Your task to perform on an android device: Go to display settings Image 0: 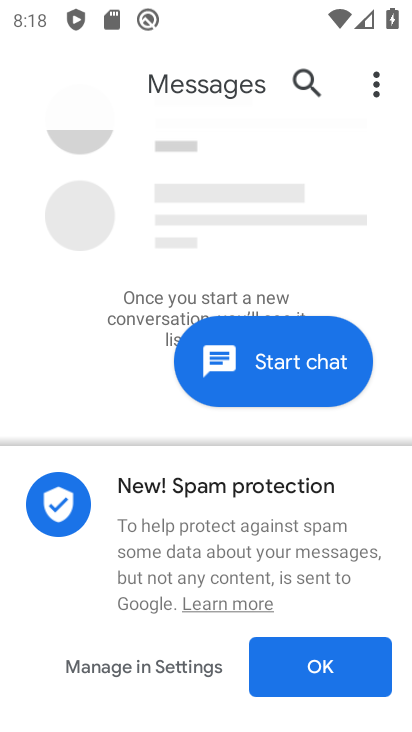
Step 0: press home button
Your task to perform on an android device: Go to display settings Image 1: 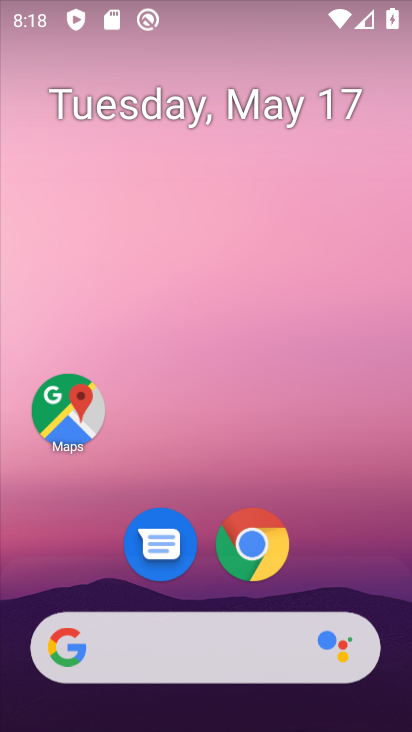
Step 1: drag from (330, 489) to (194, 4)
Your task to perform on an android device: Go to display settings Image 2: 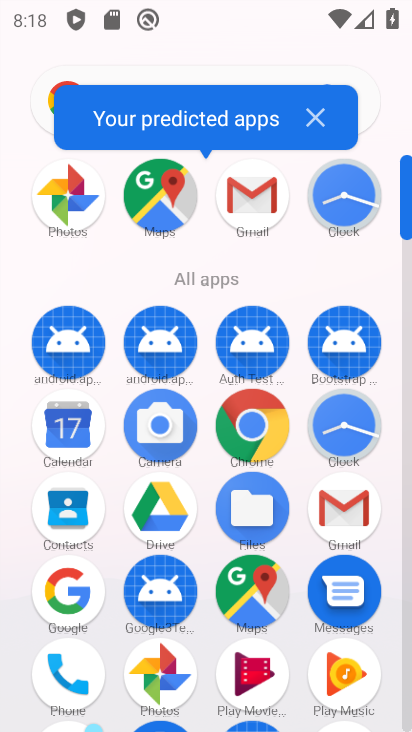
Step 2: drag from (206, 668) to (141, 367)
Your task to perform on an android device: Go to display settings Image 3: 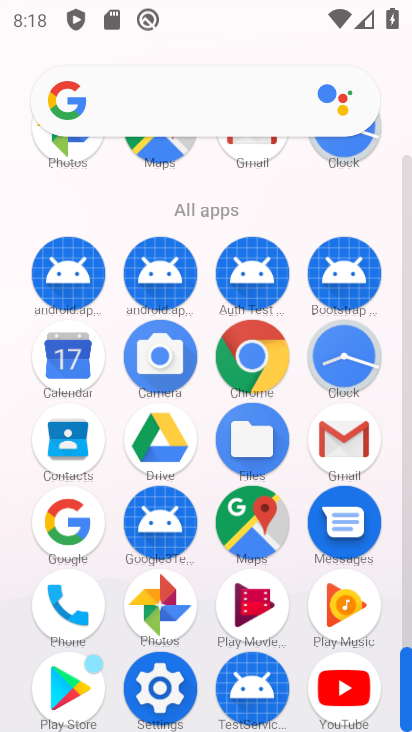
Step 3: click (166, 678)
Your task to perform on an android device: Go to display settings Image 4: 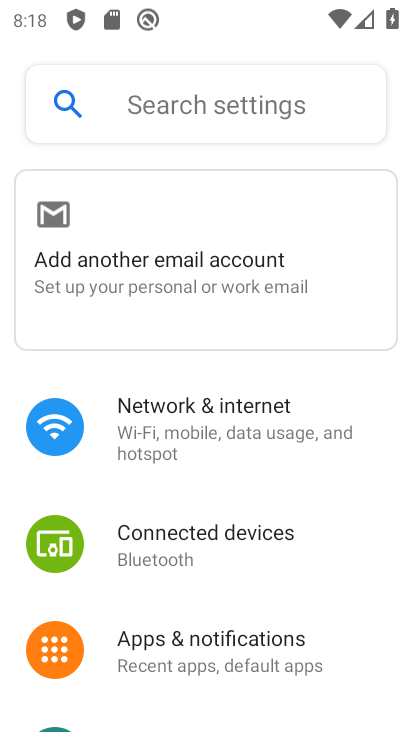
Step 4: drag from (222, 565) to (149, 249)
Your task to perform on an android device: Go to display settings Image 5: 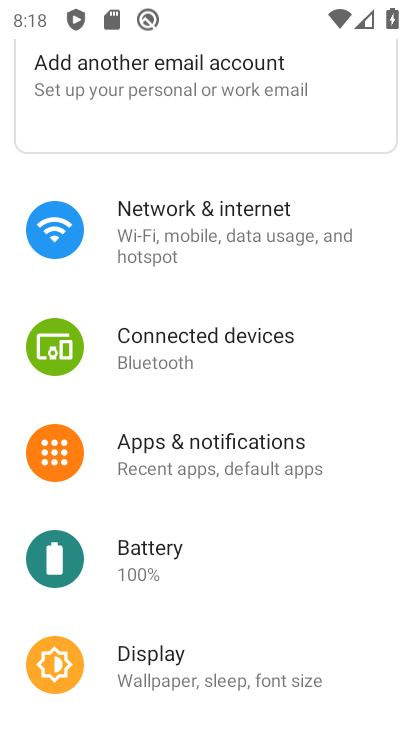
Step 5: click (148, 653)
Your task to perform on an android device: Go to display settings Image 6: 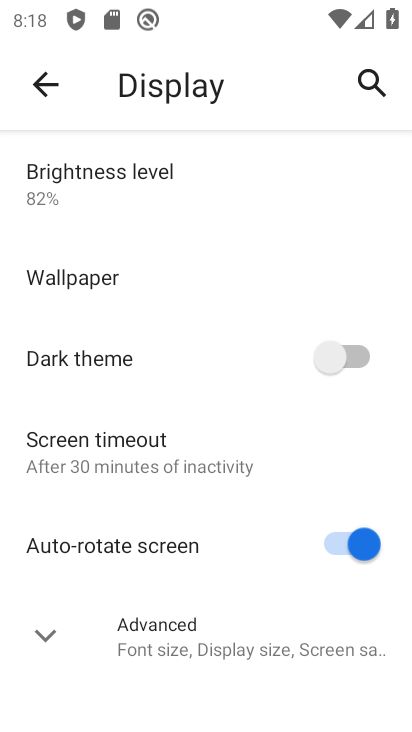
Step 6: task complete